Your task to perform on an android device: Go to network settings Image 0: 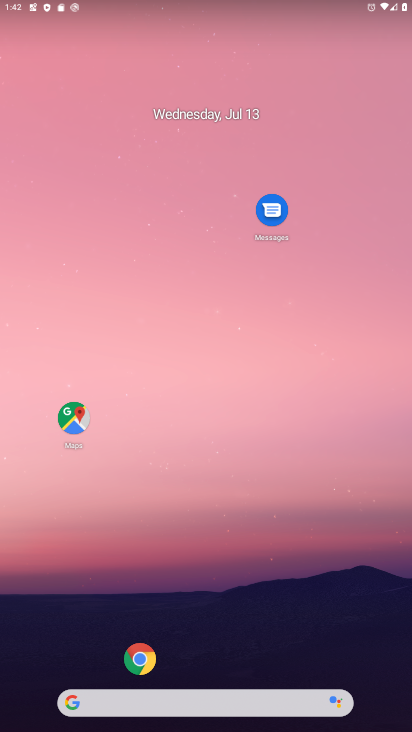
Step 0: click (115, 706)
Your task to perform on an android device: Go to network settings Image 1: 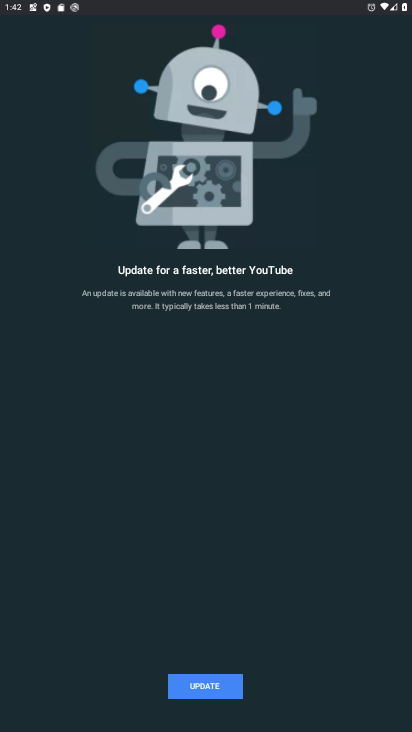
Step 1: press home button
Your task to perform on an android device: Go to network settings Image 2: 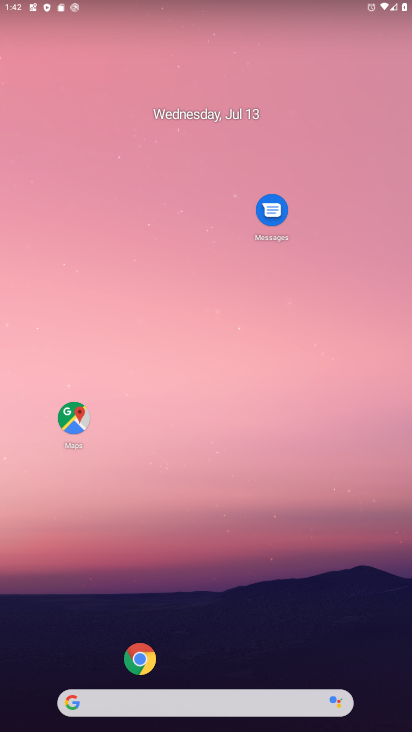
Step 2: drag from (63, 565) to (178, 245)
Your task to perform on an android device: Go to network settings Image 3: 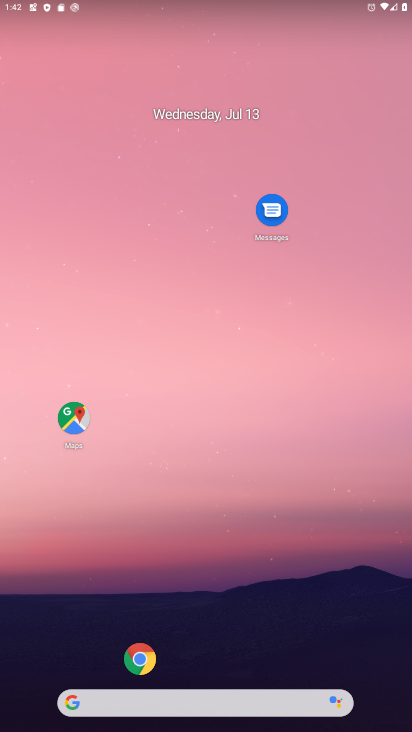
Step 3: drag from (29, 694) to (283, 35)
Your task to perform on an android device: Go to network settings Image 4: 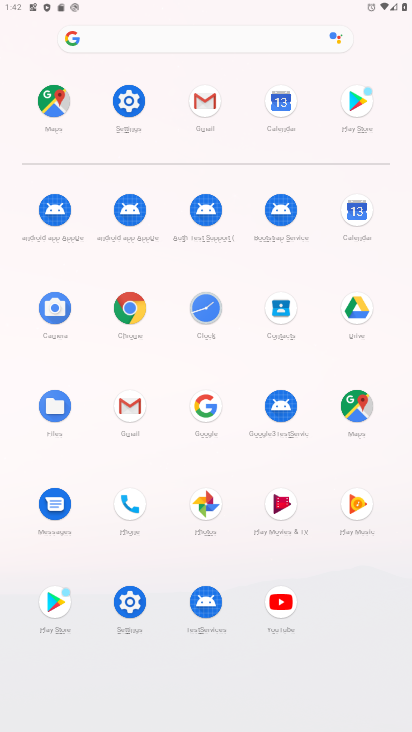
Step 4: click (143, 596)
Your task to perform on an android device: Go to network settings Image 5: 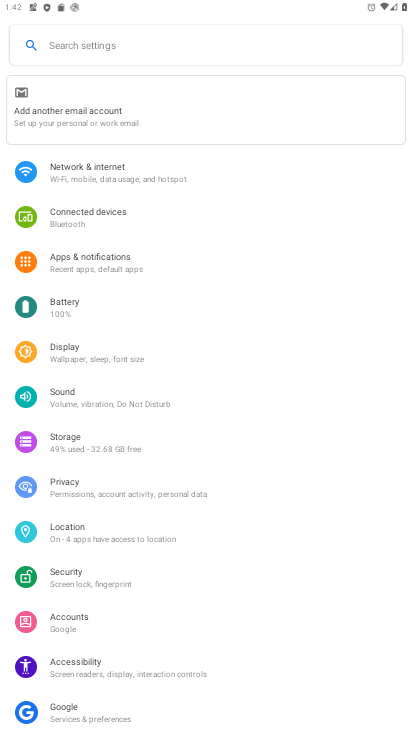
Step 5: click (94, 159)
Your task to perform on an android device: Go to network settings Image 6: 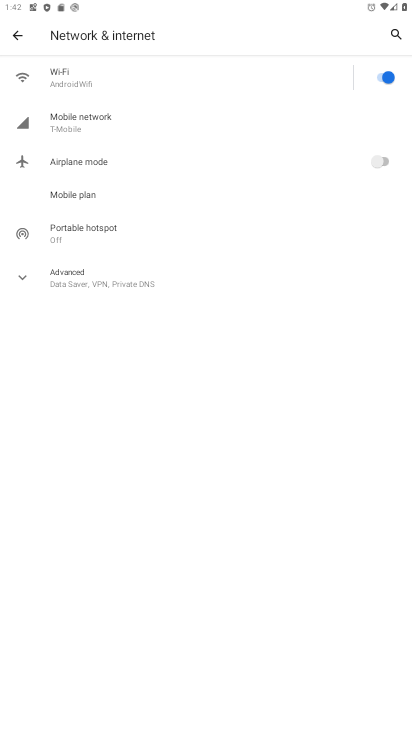
Step 6: task complete